Your task to perform on an android device: turn on the 12-hour format for clock Image 0: 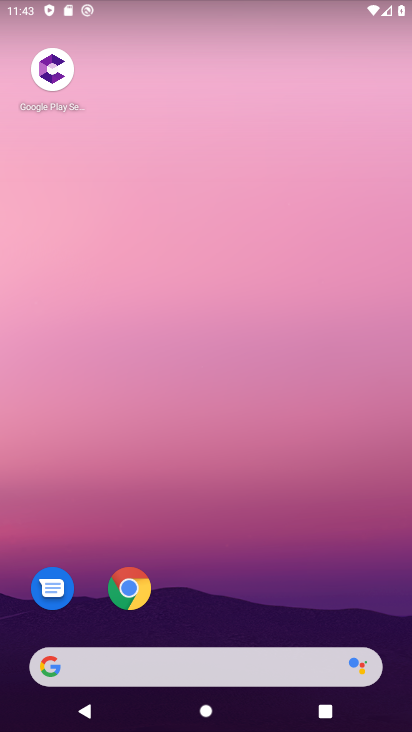
Step 0: drag from (179, 633) to (277, 162)
Your task to perform on an android device: turn on the 12-hour format for clock Image 1: 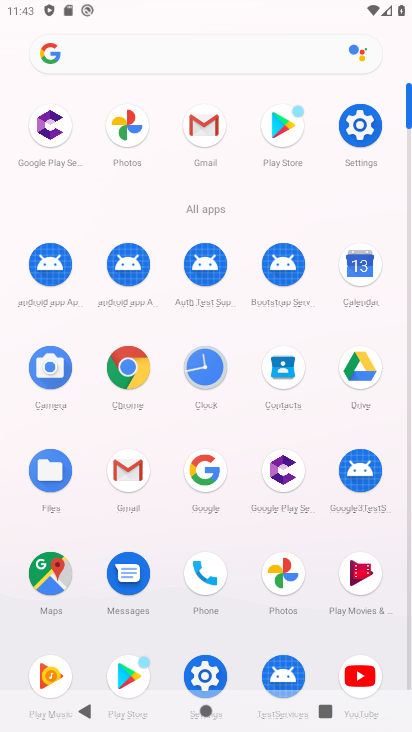
Step 1: click (204, 372)
Your task to perform on an android device: turn on the 12-hour format for clock Image 2: 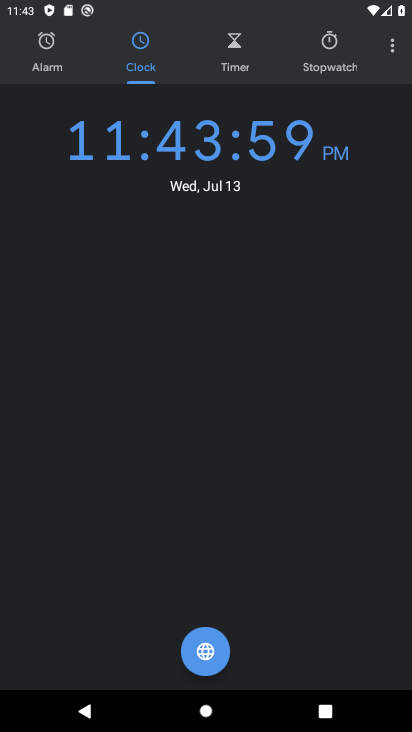
Step 2: click (405, 40)
Your task to perform on an android device: turn on the 12-hour format for clock Image 3: 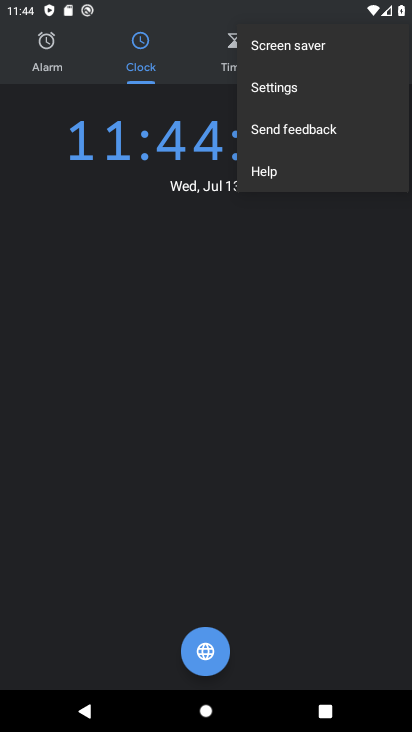
Step 3: click (354, 90)
Your task to perform on an android device: turn on the 12-hour format for clock Image 4: 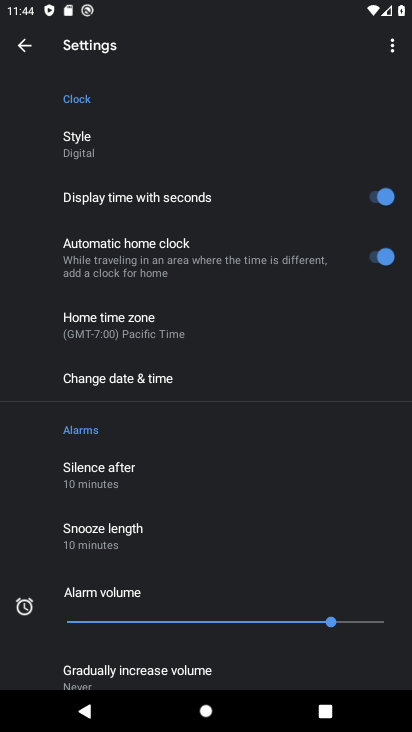
Step 4: click (207, 383)
Your task to perform on an android device: turn on the 12-hour format for clock Image 5: 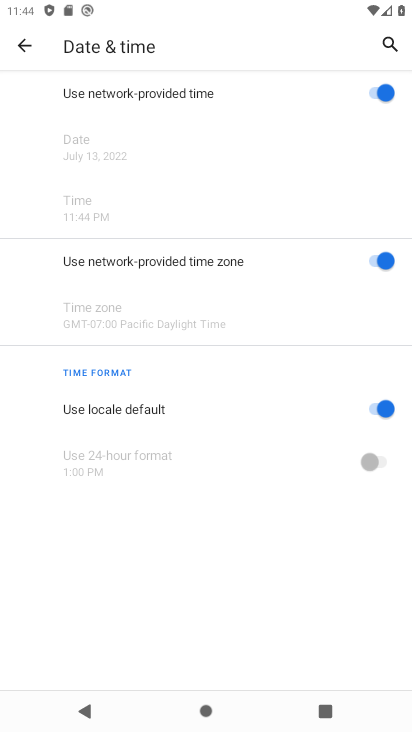
Step 5: task complete